Your task to perform on an android device: Go to Reddit.com Image 0: 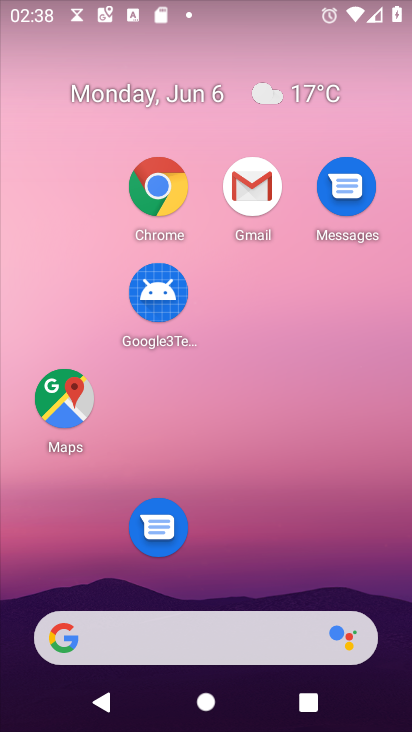
Step 0: click (199, 639)
Your task to perform on an android device: Go to Reddit.com Image 1: 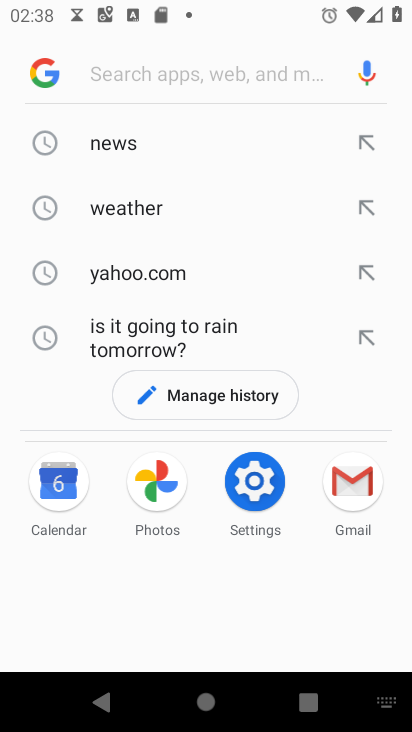
Step 1: type "Reddit.com"
Your task to perform on an android device: Go to Reddit.com Image 2: 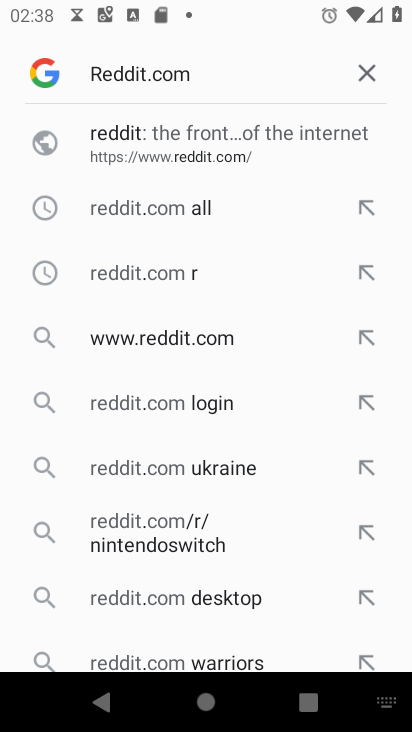
Step 2: click (219, 149)
Your task to perform on an android device: Go to Reddit.com Image 3: 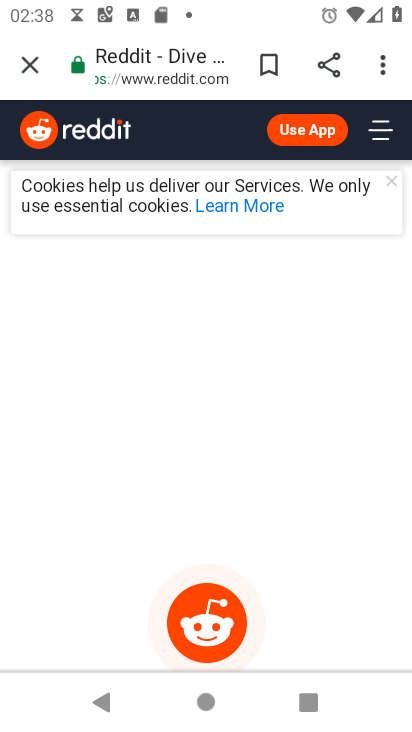
Step 3: task complete